Your task to perform on an android device: Search for seafood restaurants on Google Maps Image 0: 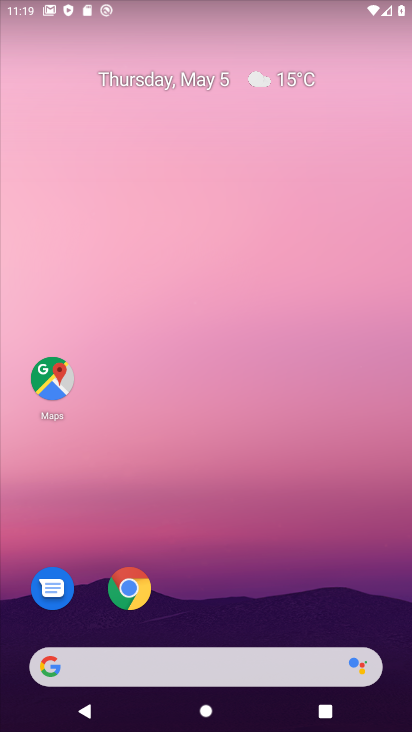
Step 0: drag from (272, 595) to (204, 0)
Your task to perform on an android device: Search for seafood restaurants on Google Maps Image 1: 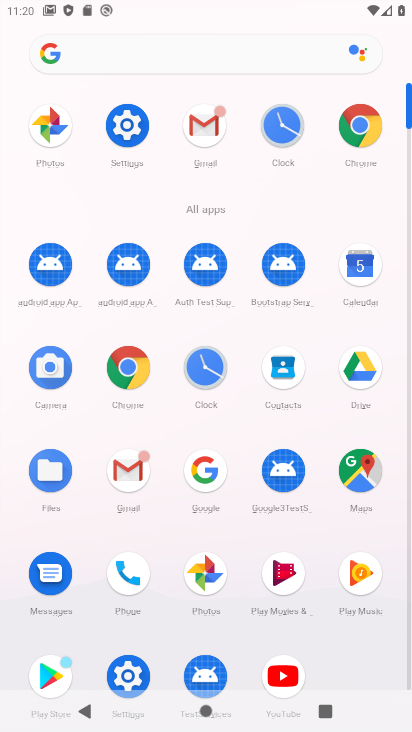
Step 1: click (345, 467)
Your task to perform on an android device: Search for seafood restaurants on Google Maps Image 2: 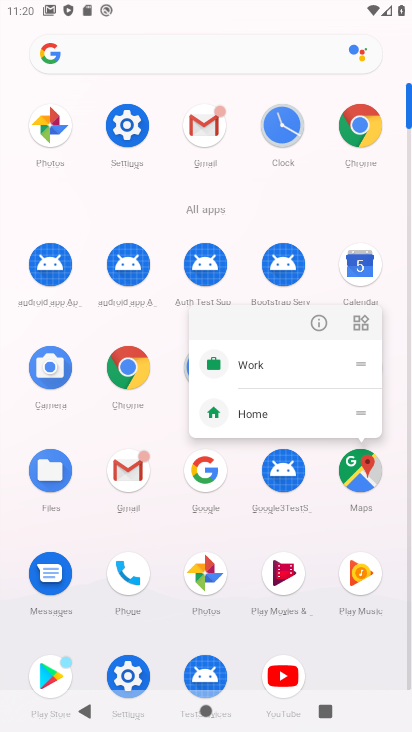
Step 2: click (358, 473)
Your task to perform on an android device: Search for seafood restaurants on Google Maps Image 3: 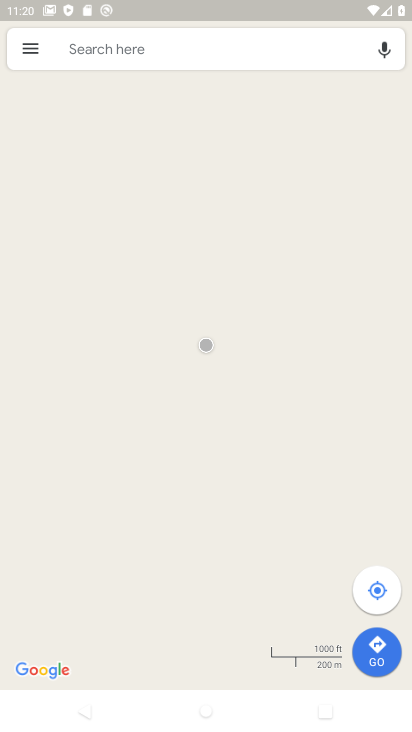
Step 3: click (277, 47)
Your task to perform on an android device: Search for seafood restaurants on Google Maps Image 4: 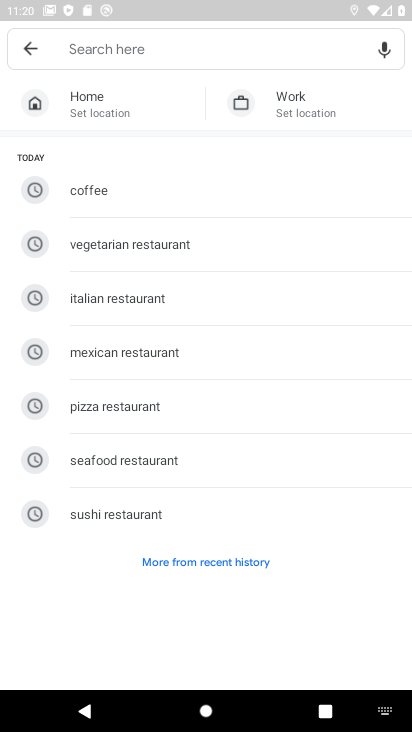
Step 4: click (145, 453)
Your task to perform on an android device: Search for seafood restaurants on Google Maps Image 5: 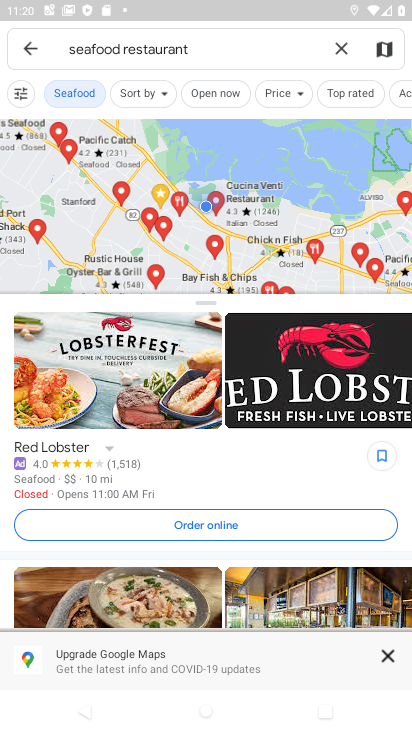
Step 5: task complete